Your task to perform on an android device: What's on my calendar tomorrow? Image 0: 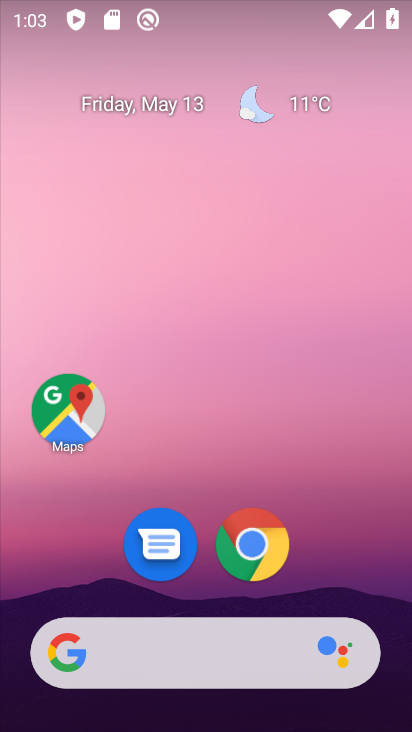
Step 0: drag from (231, 521) to (320, 240)
Your task to perform on an android device: What's on my calendar tomorrow? Image 1: 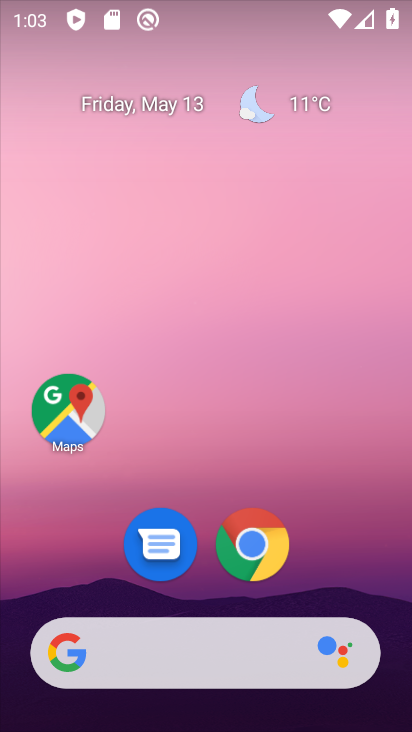
Step 1: drag from (191, 596) to (255, 178)
Your task to perform on an android device: What's on my calendar tomorrow? Image 2: 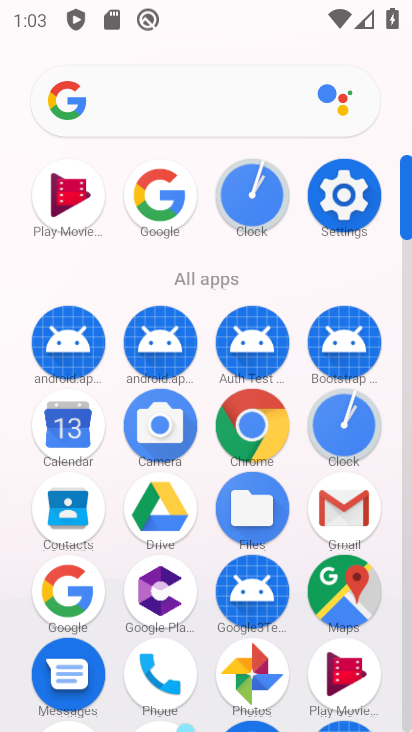
Step 2: click (68, 431)
Your task to perform on an android device: What's on my calendar tomorrow? Image 3: 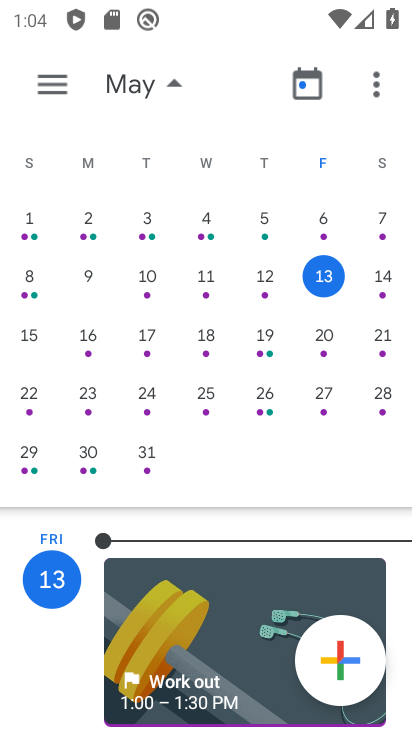
Step 3: click (379, 272)
Your task to perform on an android device: What's on my calendar tomorrow? Image 4: 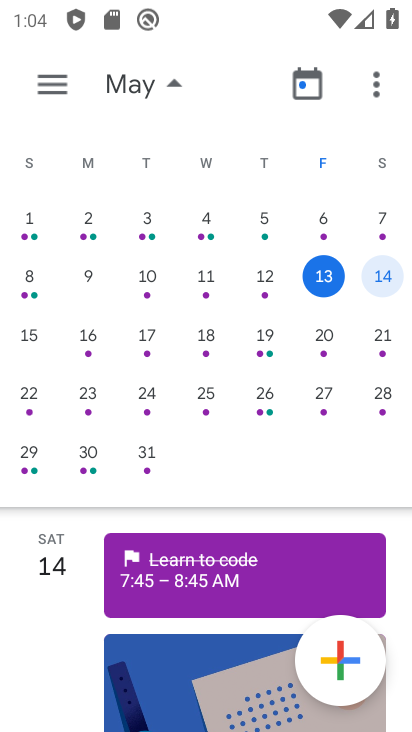
Step 4: task complete